Your task to perform on an android device: Clear all items from cart on ebay.com. Add macbook pro to the cart on ebay.com, then select checkout. Image 0: 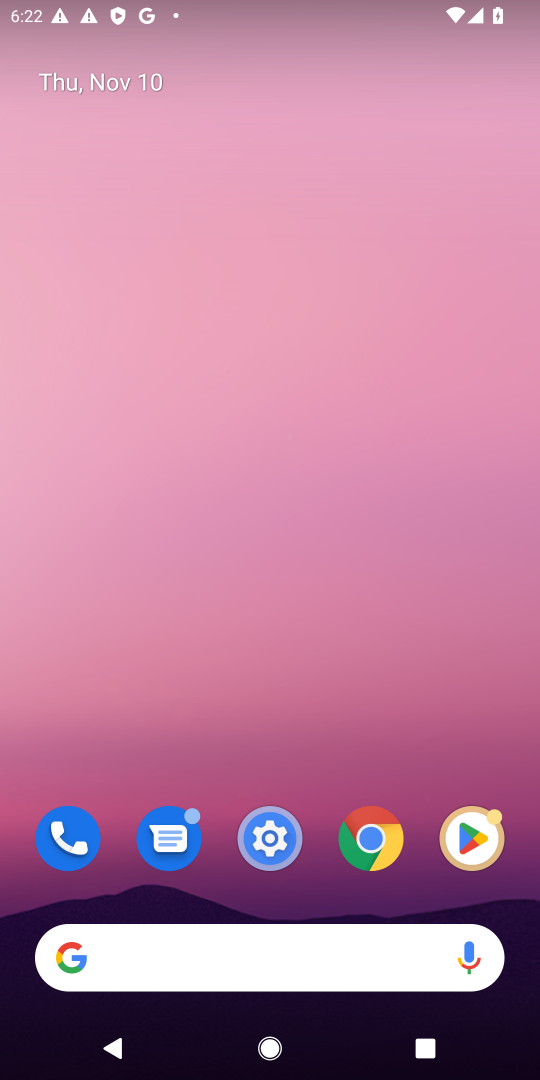
Step 0: drag from (295, 903) to (306, 52)
Your task to perform on an android device: Clear all items from cart on ebay.com. Add macbook pro to the cart on ebay.com, then select checkout. Image 1: 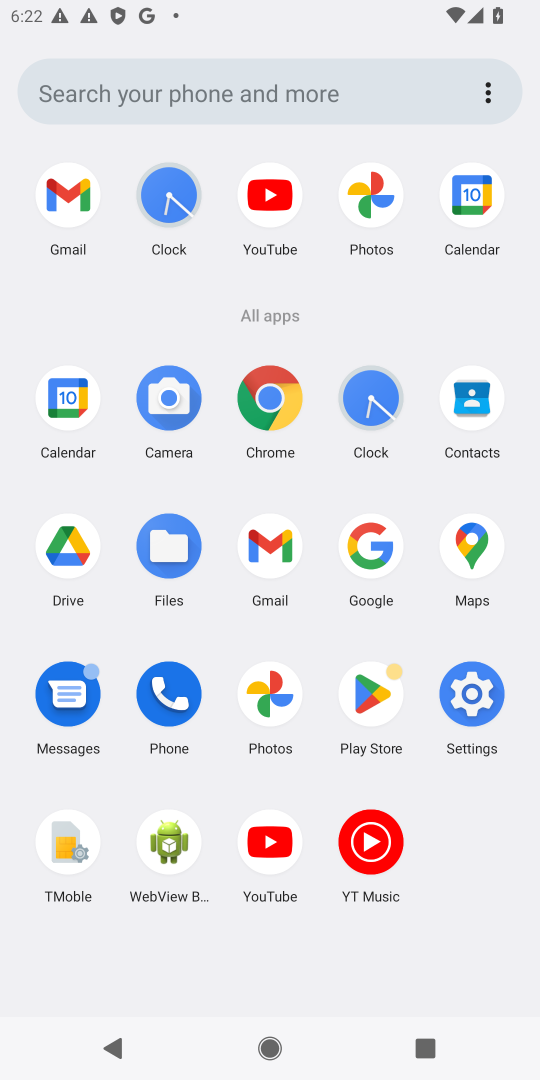
Step 1: click (268, 393)
Your task to perform on an android device: Clear all items from cart on ebay.com. Add macbook pro to the cart on ebay.com, then select checkout. Image 2: 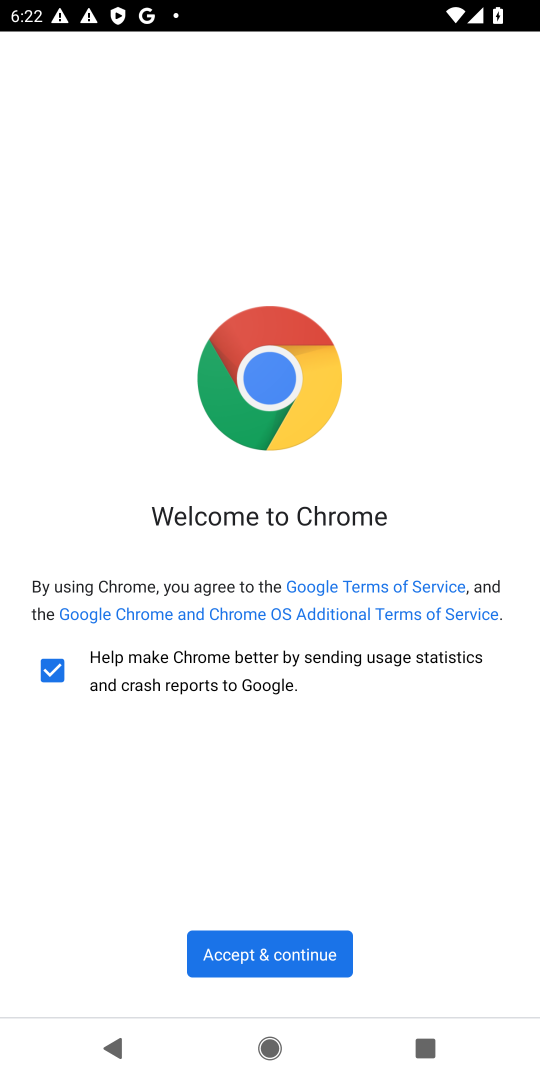
Step 2: click (284, 953)
Your task to perform on an android device: Clear all items from cart on ebay.com. Add macbook pro to the cart on ebay.com, then select checkout. Image 3: 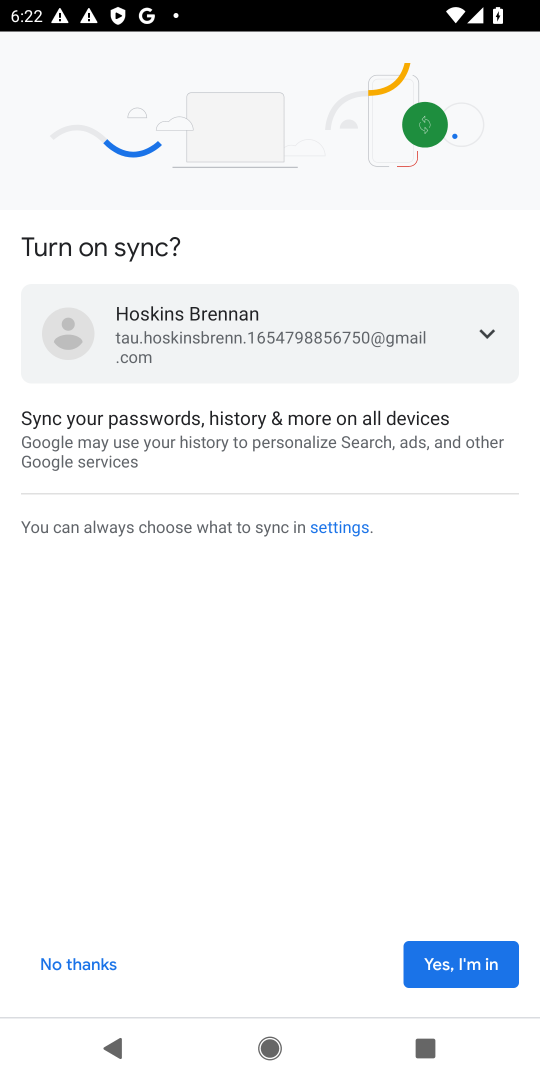
Step 3: click (475, 977)
Your task to perform on an android device: Clear all items from cart on ebay.com. Add macbook pro to the cart on ebay.com, then select checkout. Image 4: 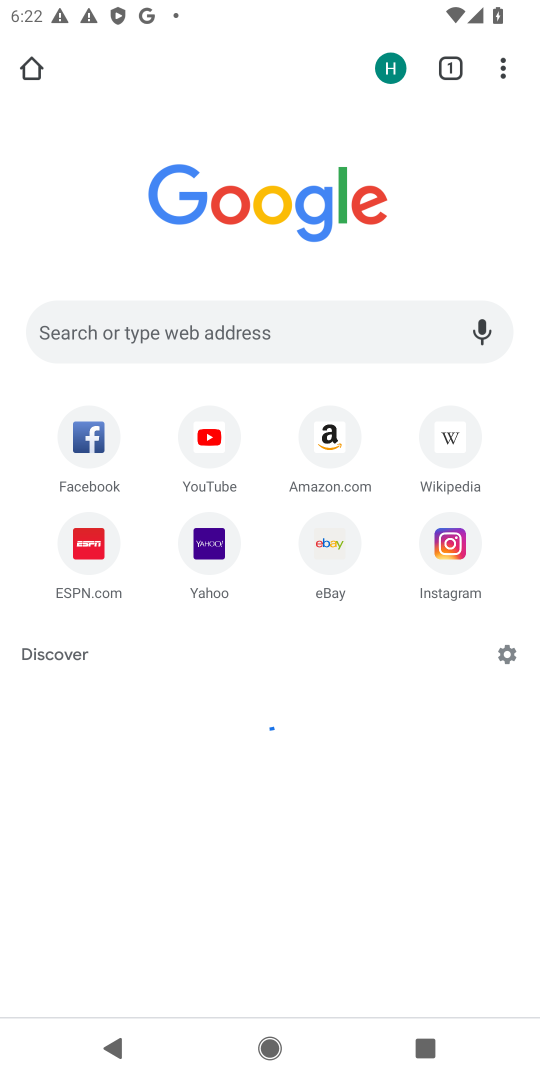
Step 4: click (208, 335)
Your task to perform on an android device: Clear all items from cart on ebay.com. Add macbook pro to the cart on ebay.com, then select checkout. Image 5: 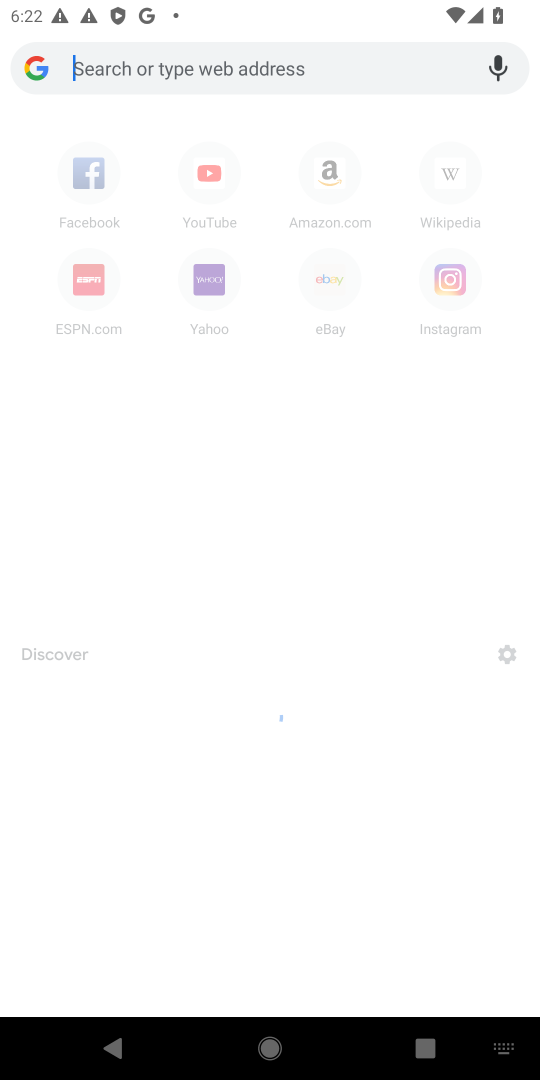
Step 5: type "ebay.com"
Your task to perform on an android device: Clear all items from cart on ebay.com. Add macbook pro to the cart on ebay.com, then select checkout. Image 6: 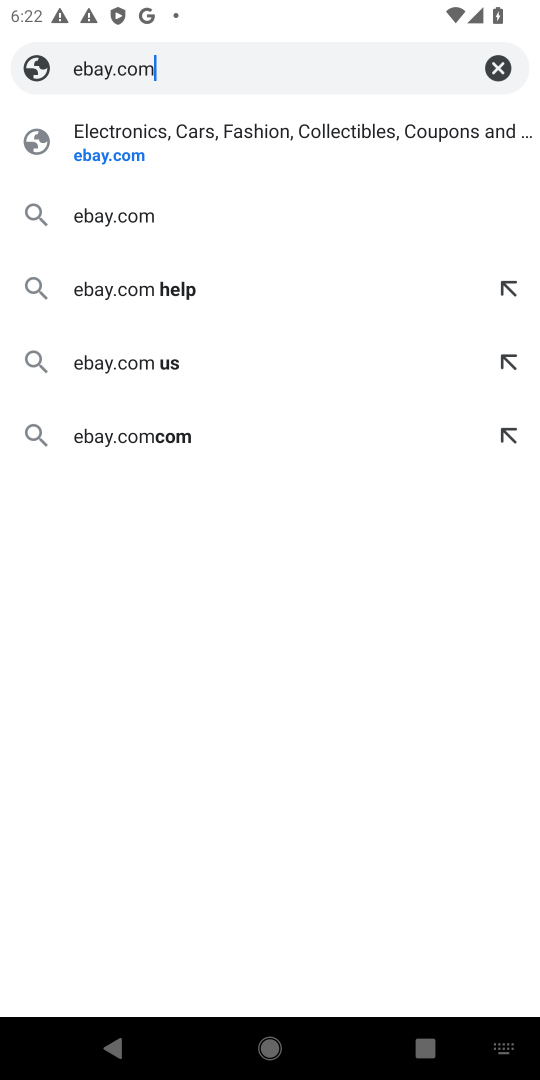
Step 6: press enter
Your task to perform on an android device: Clear all items from cart on ebay.com. Add macbook pro to the cart on ebay.com, then select checkout. Image 7: 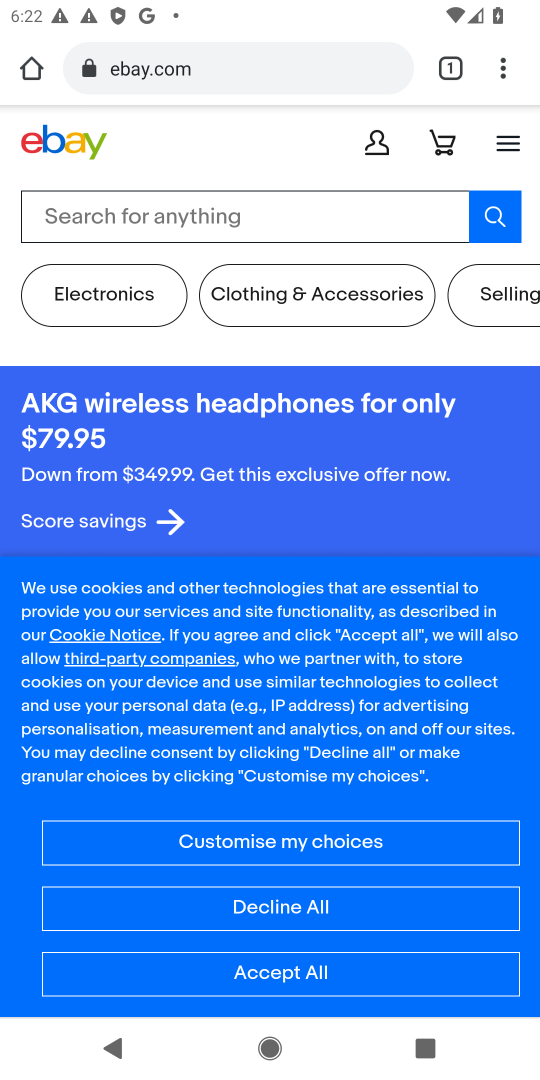
Step 7: click (448, 125)
Your task to perform on an android device: Clear all items from cart on ebay.com. Add macbook pro to the cart on ebay.com, then select checkout. Image 8: 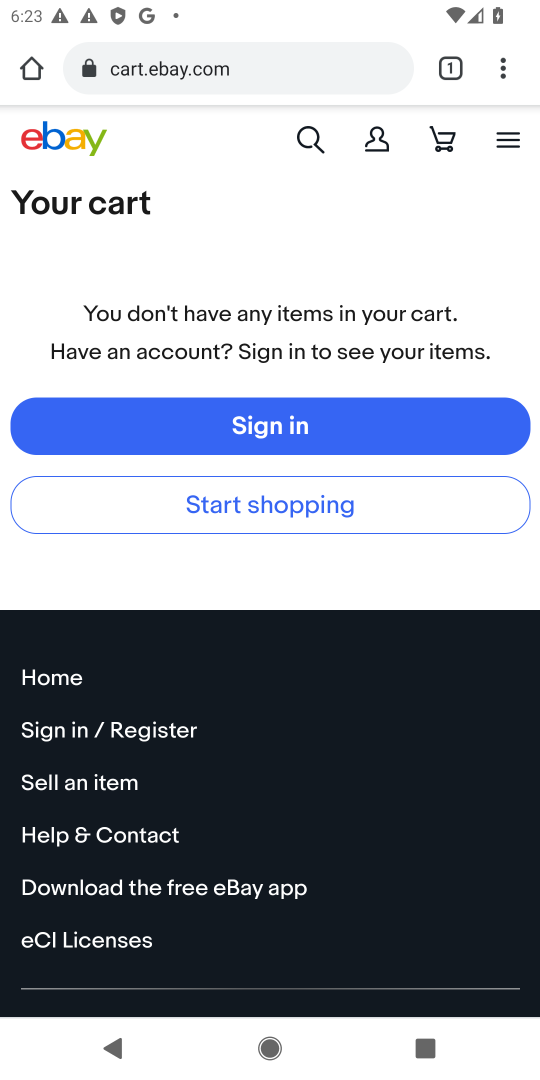
Step 8: click (316, 128)
Your task to perform on an android device: Clear all items from cart on ebay.com. Add macbook pro to the cart on ebay.com, then select checkout. Image 9: 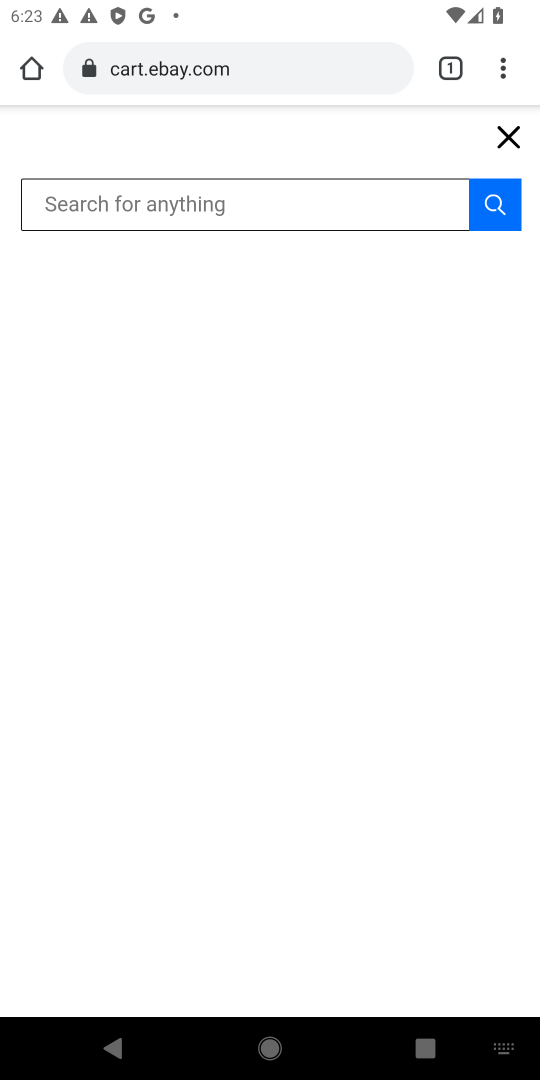
Step 9: type "macbook pro"
Your task to perform on an android device: Clear all items from cart on ebay.com. Add macbook pro to the cart on ebay.com, then select checkout. Image 10: 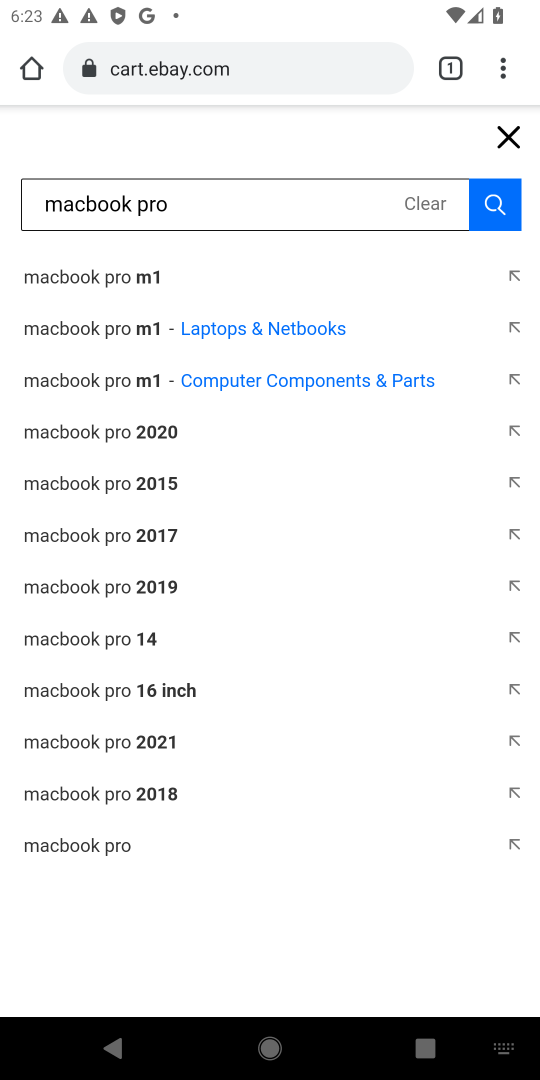
Step 10: press enter
Your task to perform on an android device: Clear all items from cart on ebay.com. Add macbook pro to the cart on ebay.com, then select checkout. Image 11: 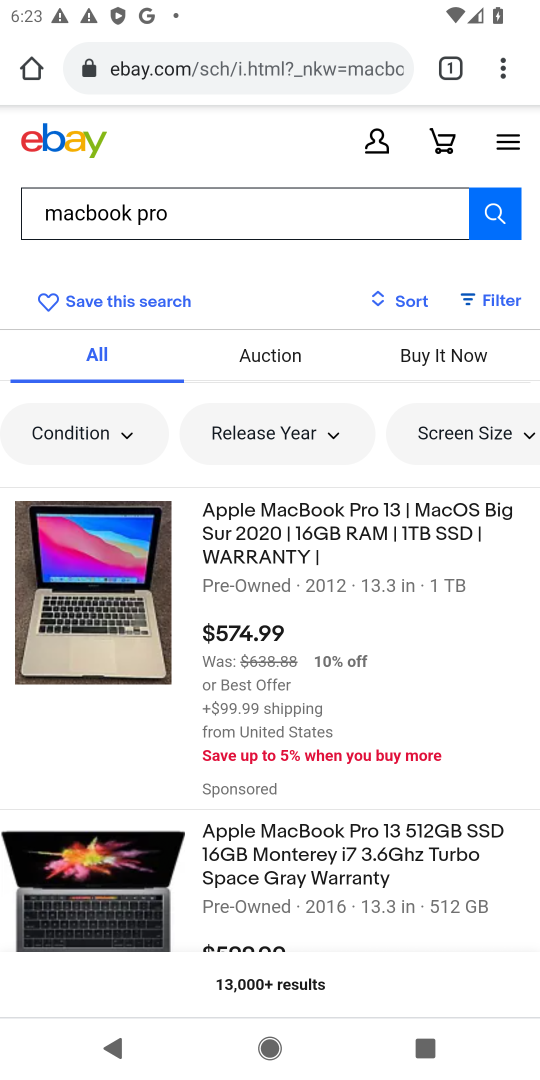
Step 11: click (288, 576)
Your task to perform on an android device: Clear all items from cart on ebay.com. Add macbook pro to the cart on ebay.com, then select checkout. Image 12: 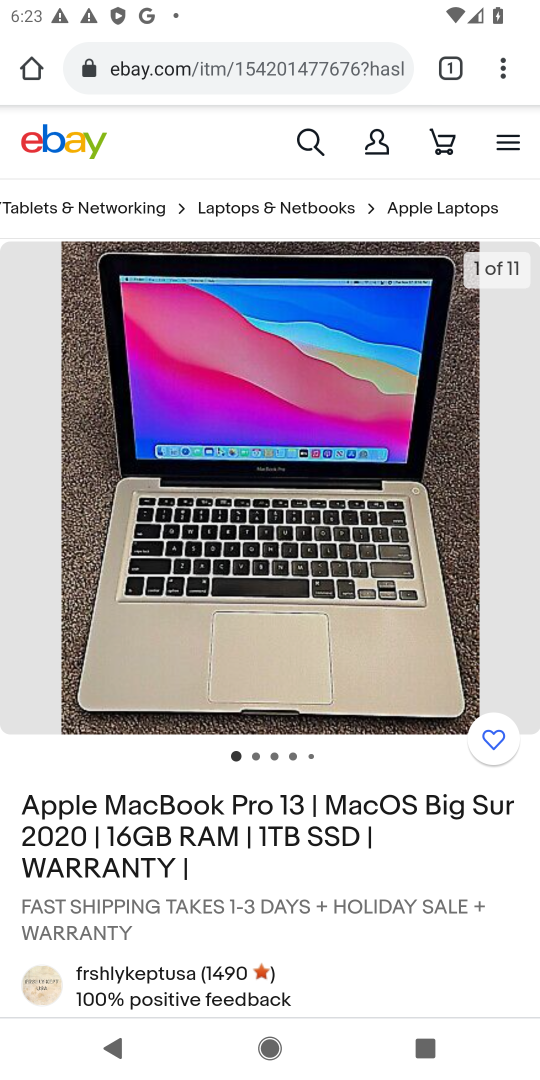
Step 12: drag from (283, 928) to (298, 257)
Your task to perform on an android device: Clear all items from cart on ebay.com. Add macbook pro to the cart on ebay.com, then select checkout. Image 13: 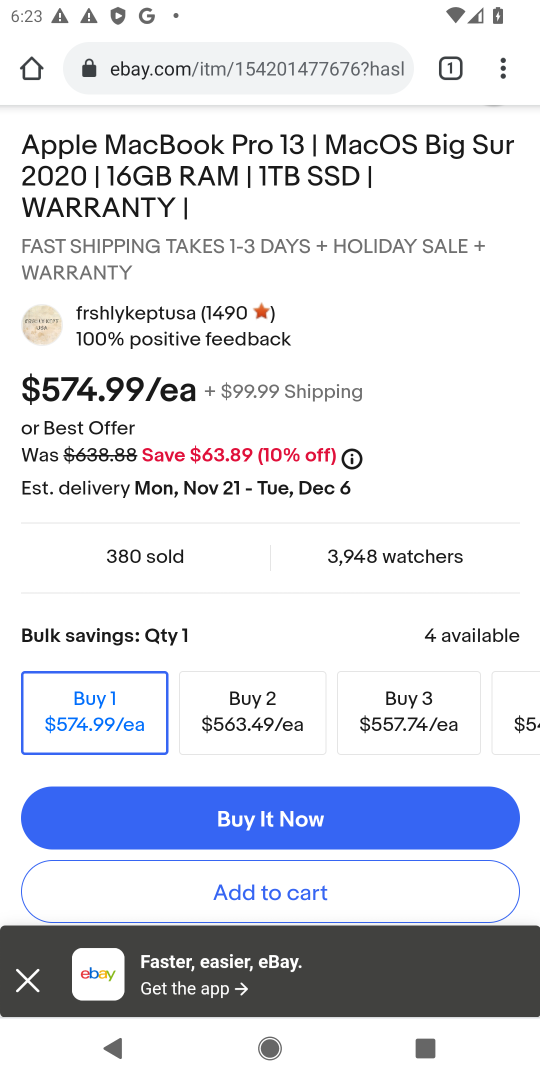
Step 13: drag from (284, 732) to (256, 352)
Your task to perform on an android device: Clear all items from cart on ebay.com. Add macbook pro to the cart on ebay.com, then select checkout. Image 14: 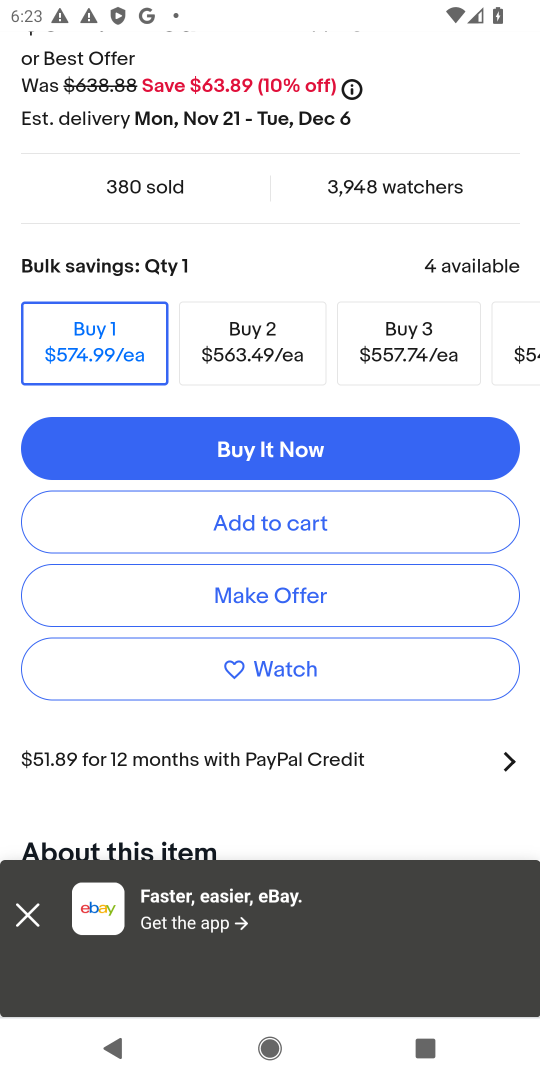
Step 14: click (269, 515)
Your task to perform on an android device: Clear all items from cart on ebay.com. Add macbook pro to the cart on ebay.com, then select checkout. Image 15: 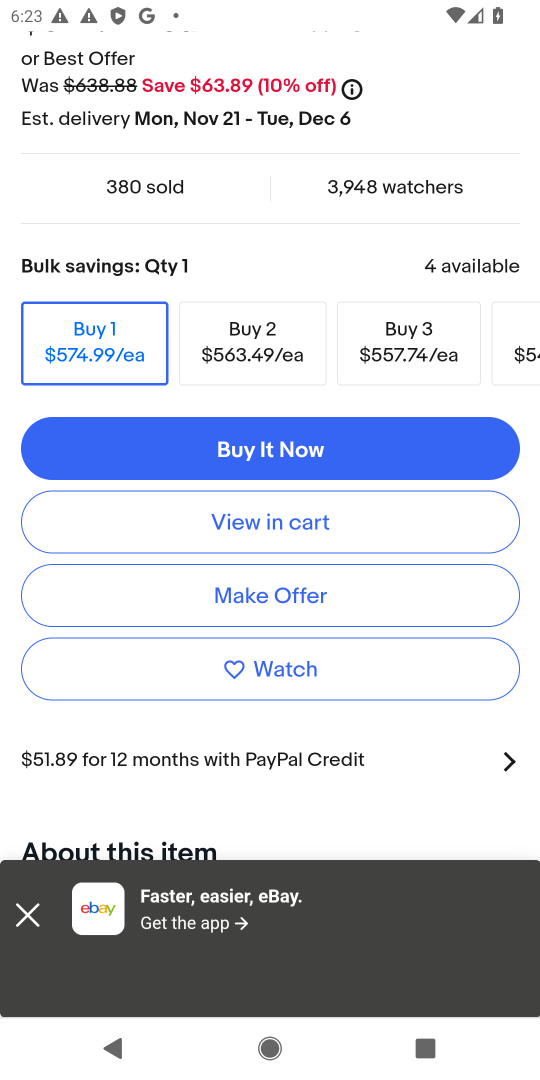
Step 15: click (271, 517)
Your task to perform on an android device: Clear all items from cart on ebay.com. Add macbook pro to the cart on ebay.com, then select checkout. Image 16: 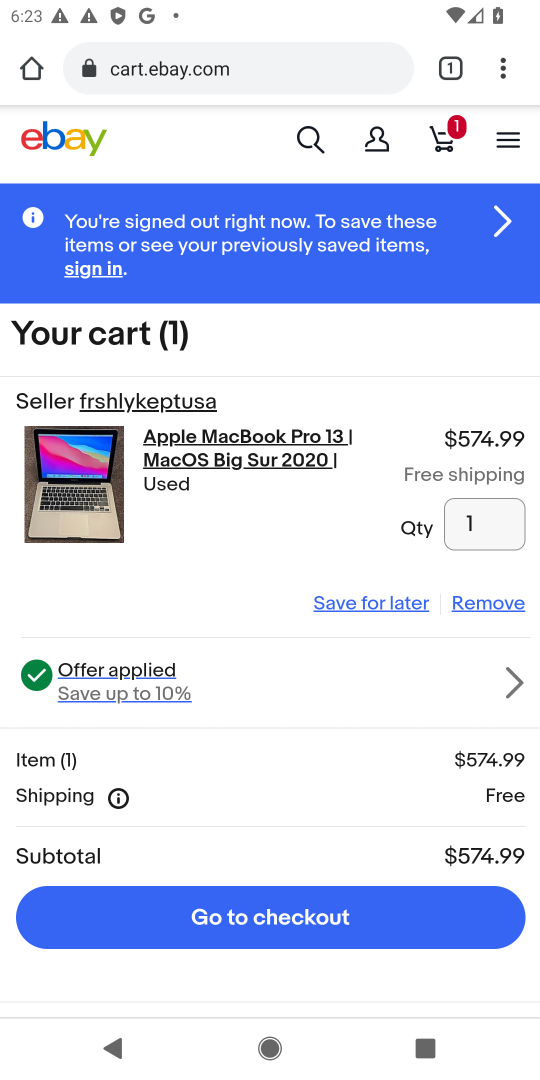
Step 16: click (292, 929)
Your task to perform on an android device: Clear all items from cart on ebay.com. Add macbook pro to the cart on ebay.com, then select checkout. Image 17: 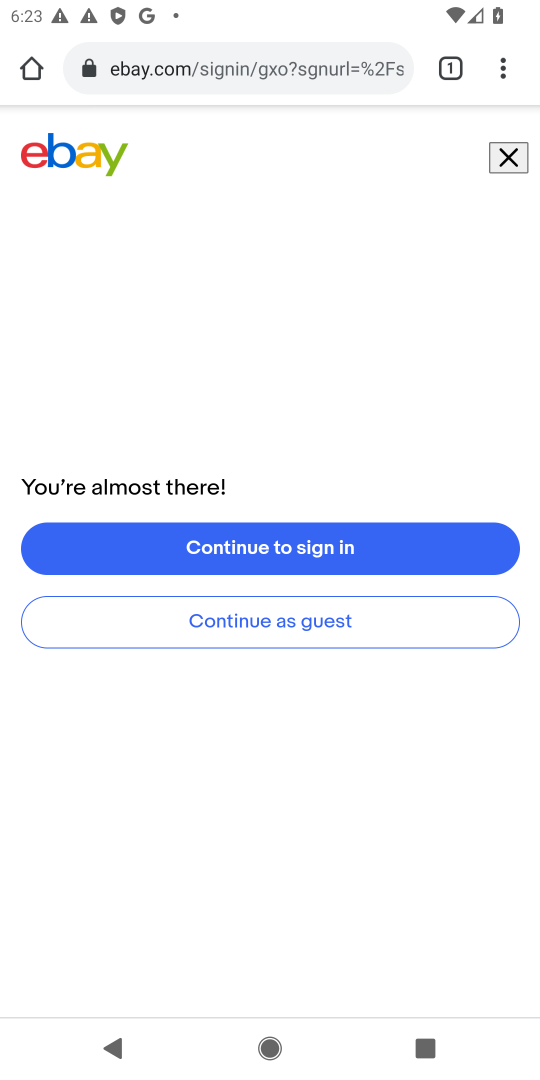
Step 17: task complete